Your task to perform on an android device: turn off translation in the chrome app Image 0: 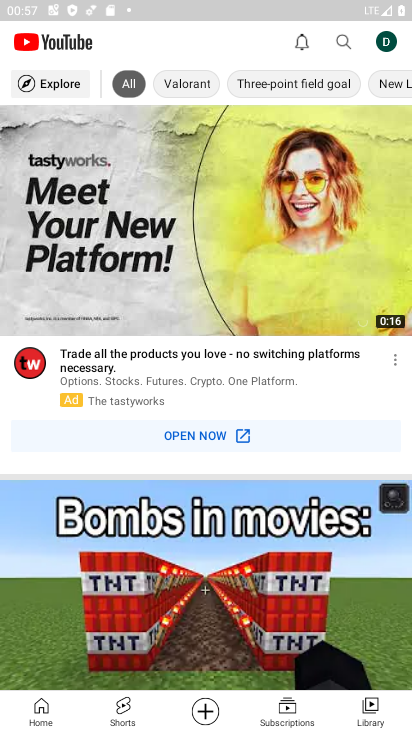
Step 0: press back button
Your task to perform on an android device: turn off translation in the chrome app Image 1: 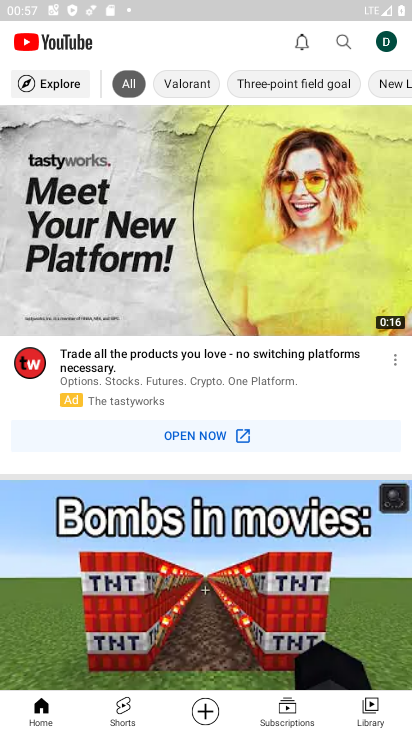
Step 1: press back button
Your task to perform on an android device: turn off translation in the chrome app Image 2: 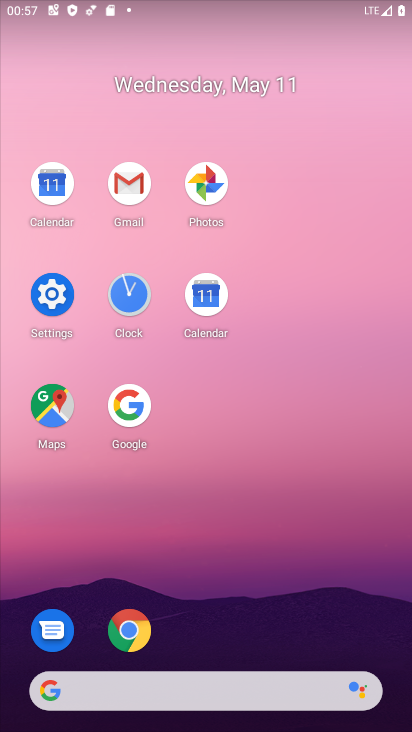
Step 2: click (117, 632)
Your task to perform on an android device: turn off translation in the chrome app Image 3: 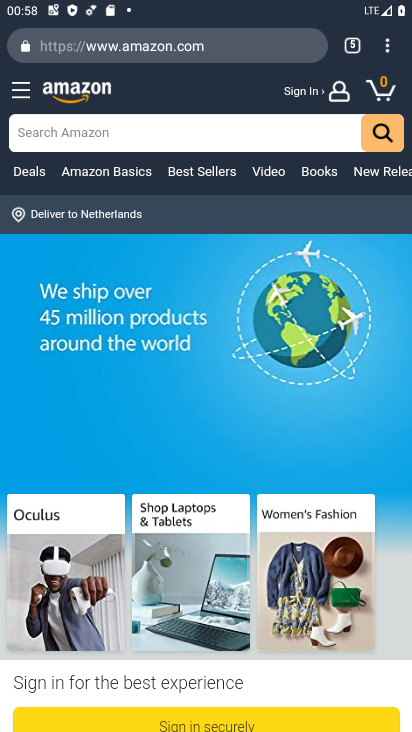
Step 3: click (392, 46)
Your task to perform on an android device: turn off translation in the chrome app Image 4: 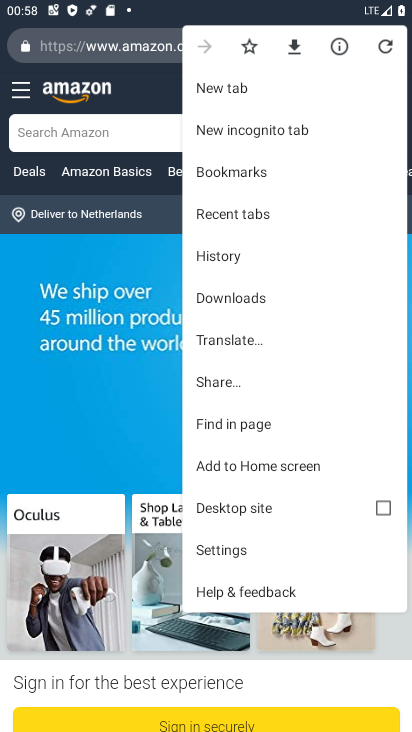
Step 4: click (265, 547)
Your task to perform on an android device: turn off translation in the chrome app Image 5: 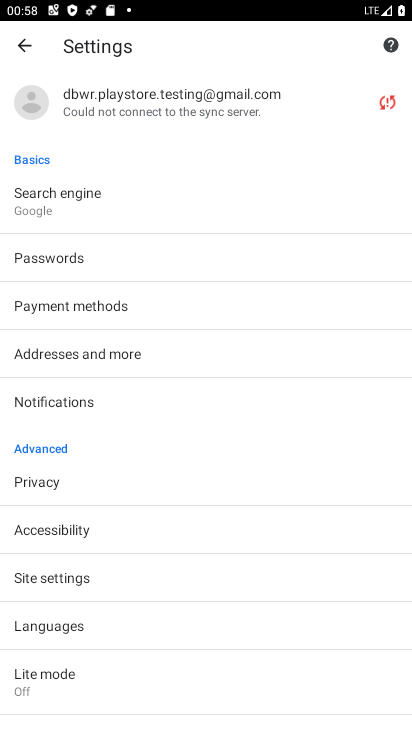
Step 5: click (73, 627)
Your task to perform on an android device: turn off translation in the chrome app Image 6: 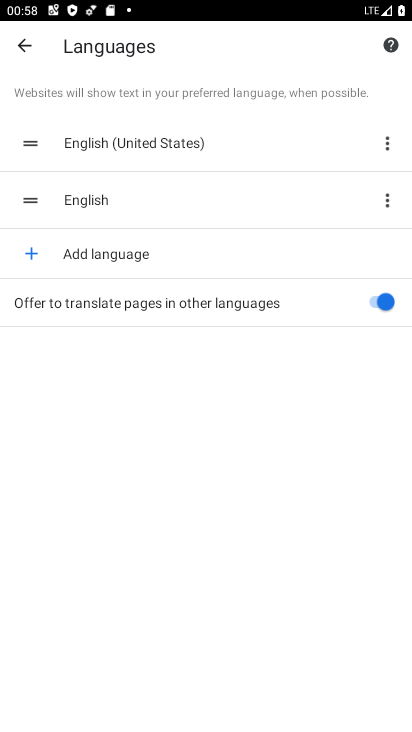
Step 6: click (371, 294)
Your task to perform on an android device: turn off translation in the chrome app Image 7: 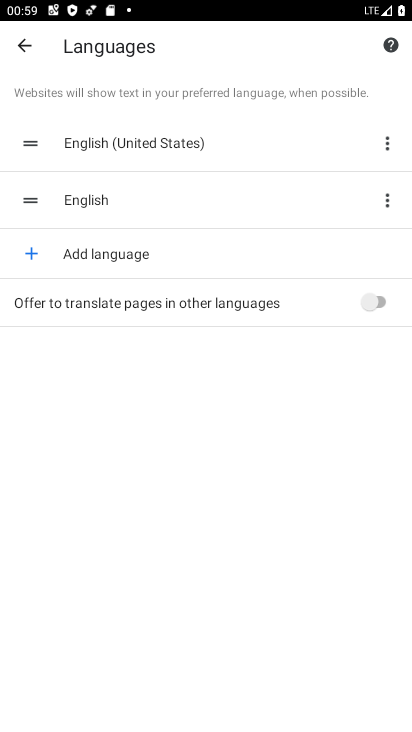
Step 7: task complete